Your task to perform on an android device: Go to Wikipedia Image 0: 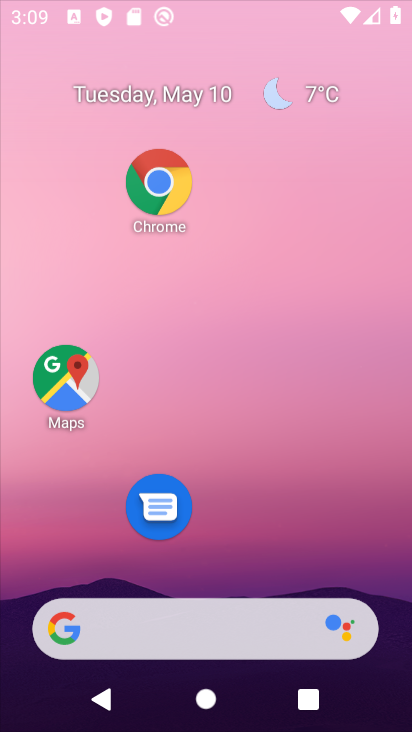
Step 0: click (303, 490)
Your task to perform on an android device: Go to Wikipedia Image 1: 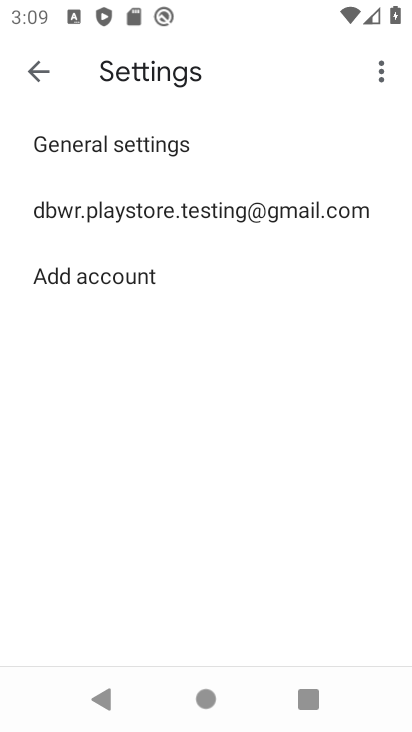
Step 1: press home button
Your task to perform on an android device: Go to Wikipedia Image 2: 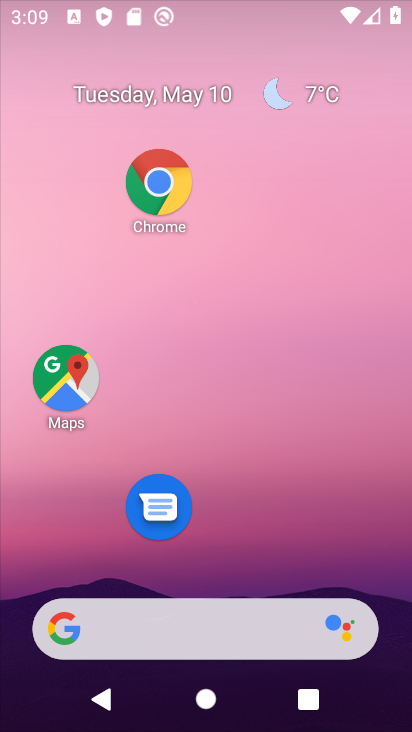
Step 2: click (309, 457)
Your task to perform on an android device: Go to Wikipedia Image 3: 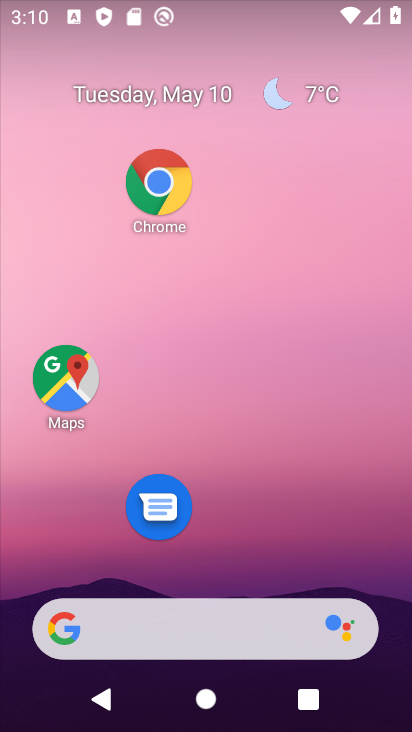
Step 3: click (177, 220)
Your task to perform on an android device: Go to Wikipedia Image 4: 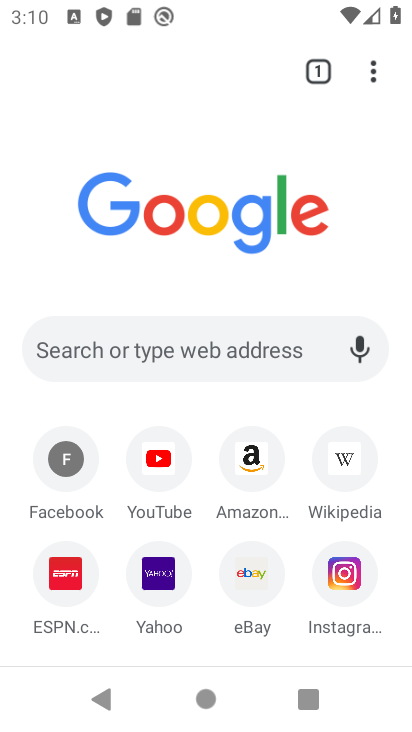
Step 4: click (352, 466)
Your task to perform on an android device: Go to Wikipedia Image 5: 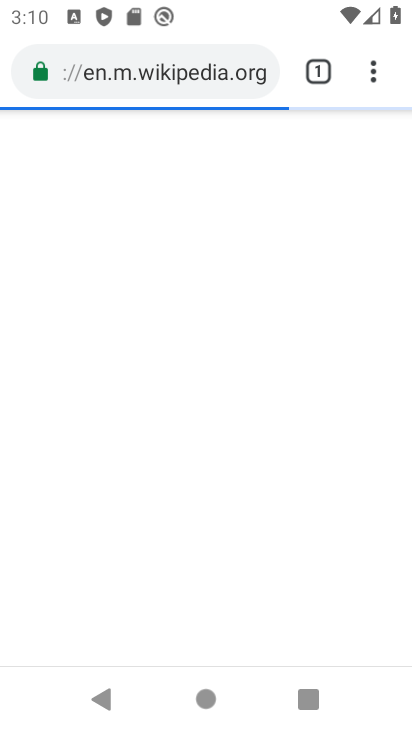
Step 5: task complete